Your task to perform on an android device: Add "usb-a to usb-b" to the cart on ebay.com, then select checkout. Image 0: 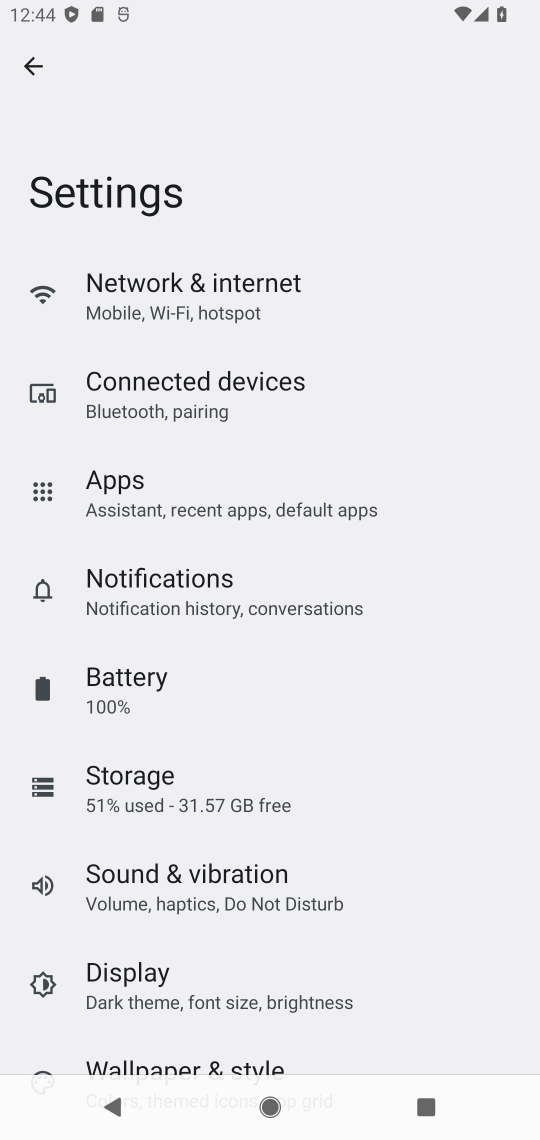
Step 0: press home button
Your task to perform on an android device: Add "usb-a to usb-b" to the cart on ebay.com, then select checkout. Image 1: 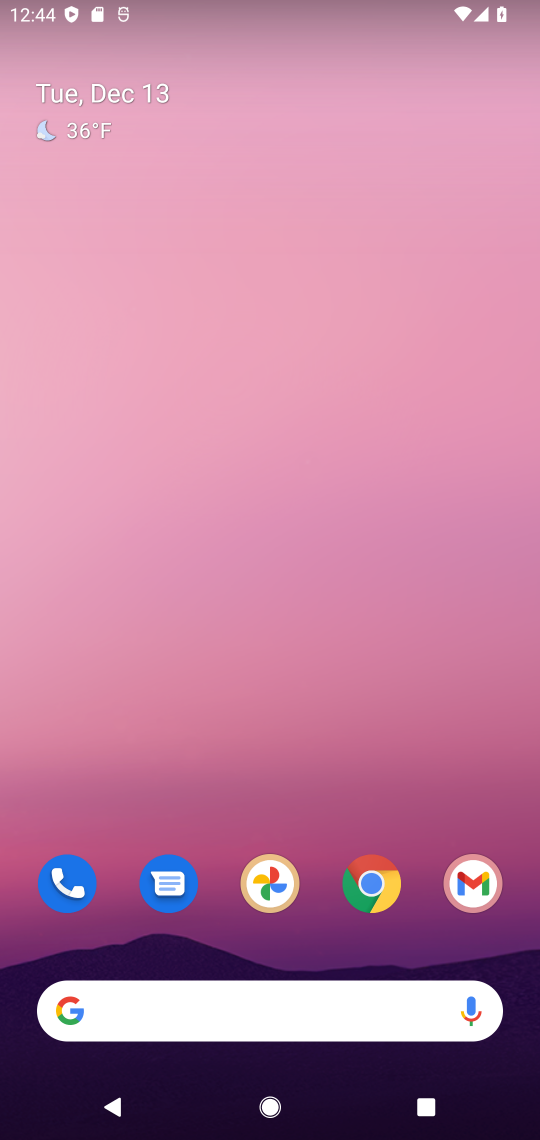
Step 1: drag from (265, 912) to (282, 328)
Your task to perform on an android device: Add "usb-a to usb-b" to the cart on ebay.com, then select checkout. Image 2: 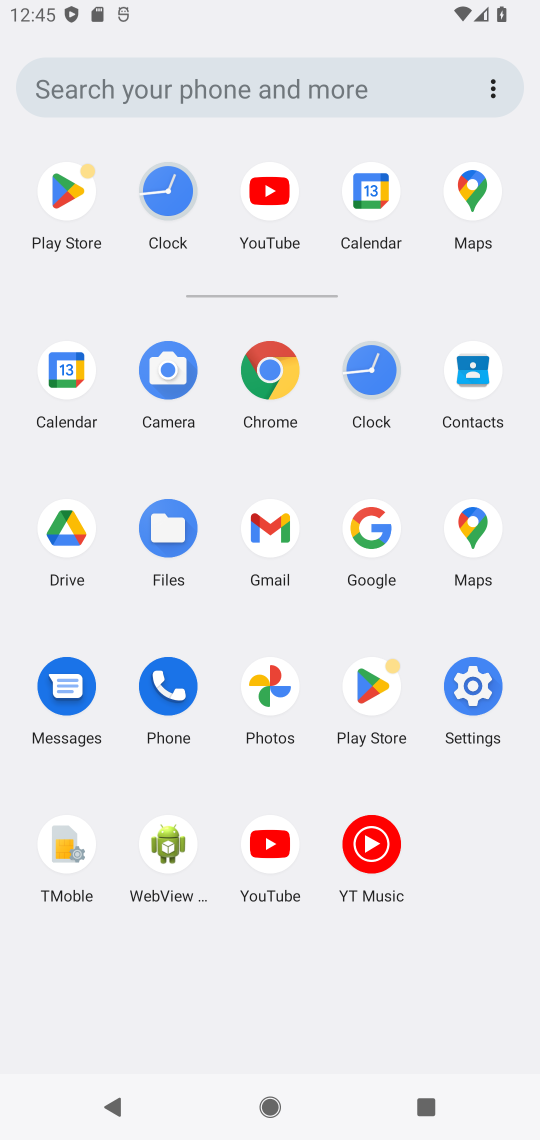
Step 2: click (270, 387)
Your task to perform on an android device: Add "usb-a to usb-b" to the cart on ebay.com, then select checkout. Image 3: 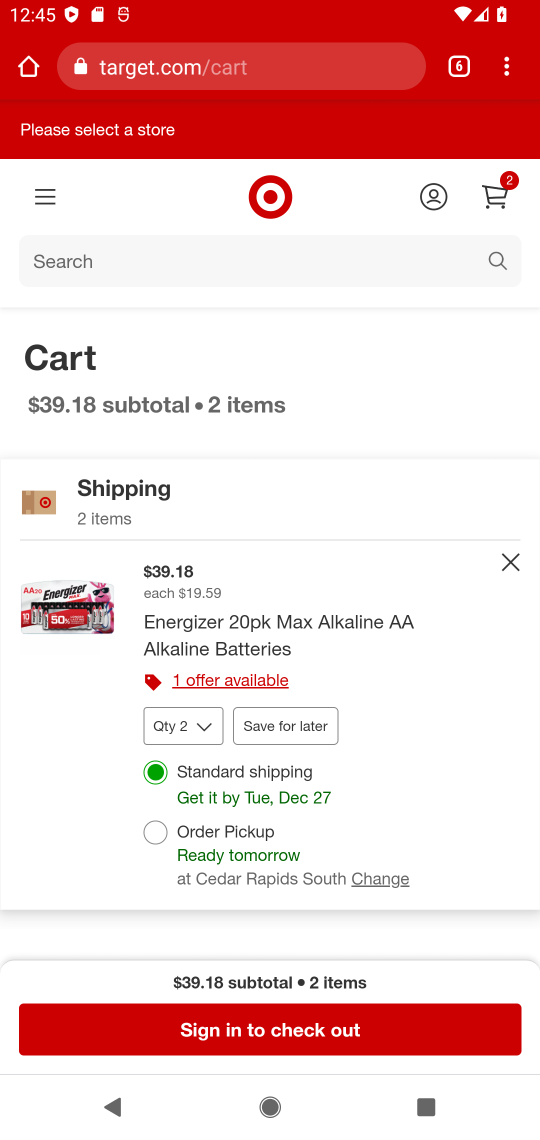
Step 3: click (152, 62)
Your task to perform on an android device: Add "usb-a to usb-b" to the cart on ebay.com, then select checkout. Image 4: 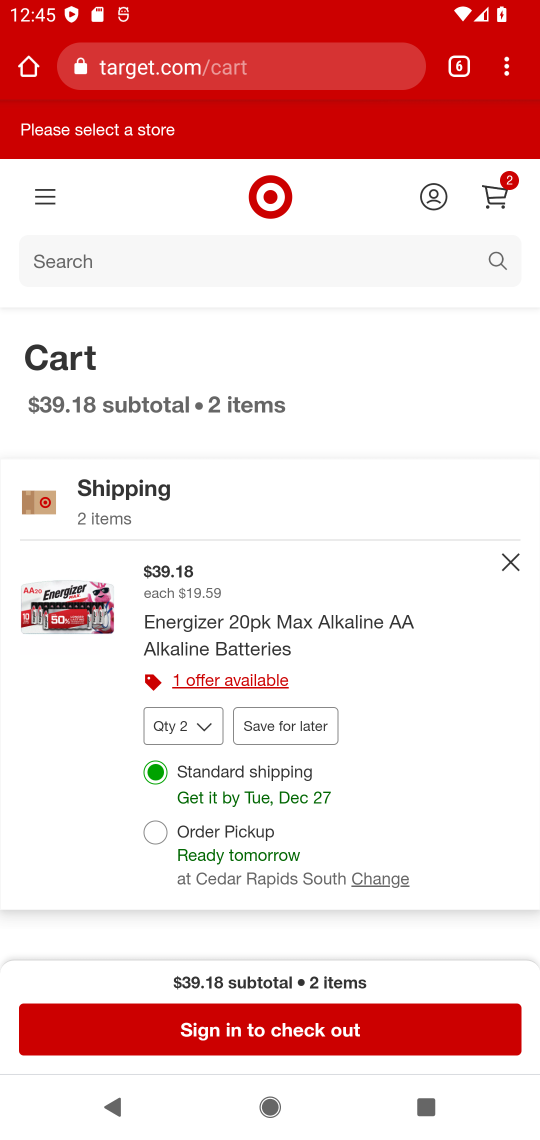
Step 4: click (152, 62)
Your task to perform on an android device: Add "usb-a to usb-b" to the cart on ebay.com, then select checkout. Image 5: 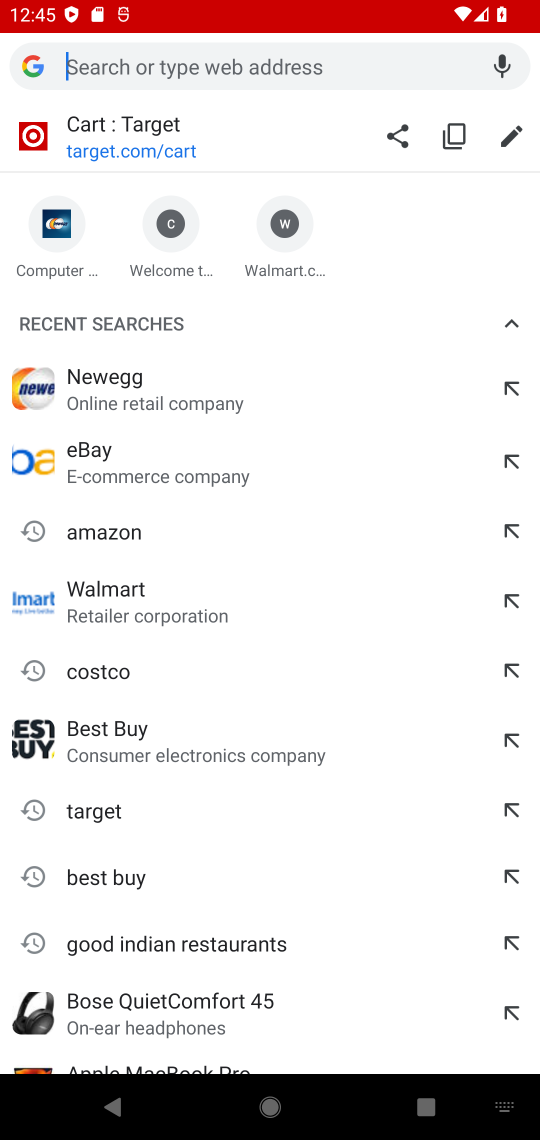
Step 5: type "ebay.com,"
Your task to perform on an android device: Add "usb-a to usb-b" to the cart on ebay.com, then select checkout. Image 6: 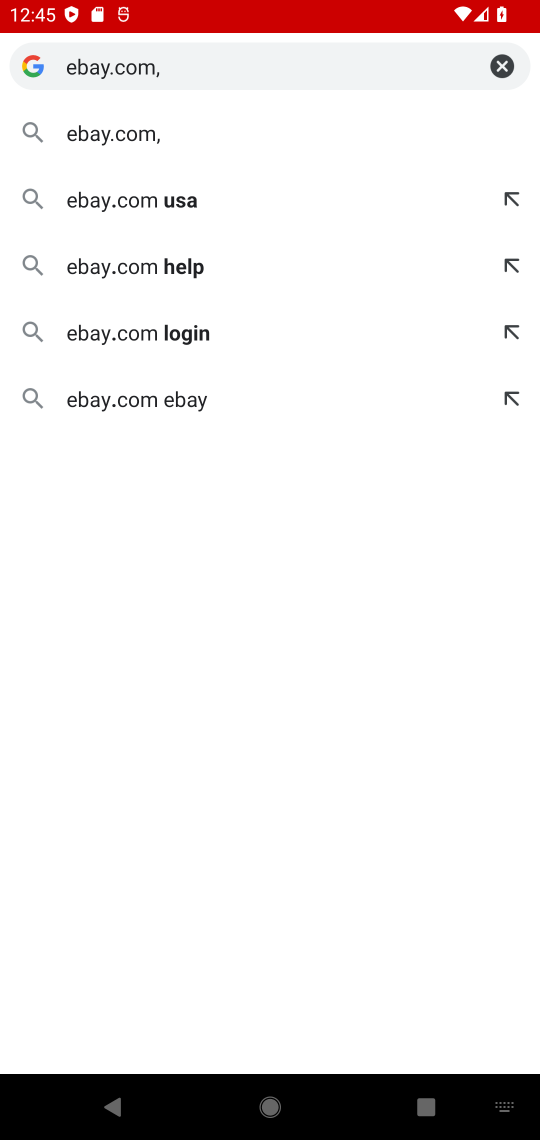
Step 6: click (135, 134)
Your task to perform on an android device: Add "usb-a to usb-b" to the cart on ebay.com, then select checkout. Image 7: 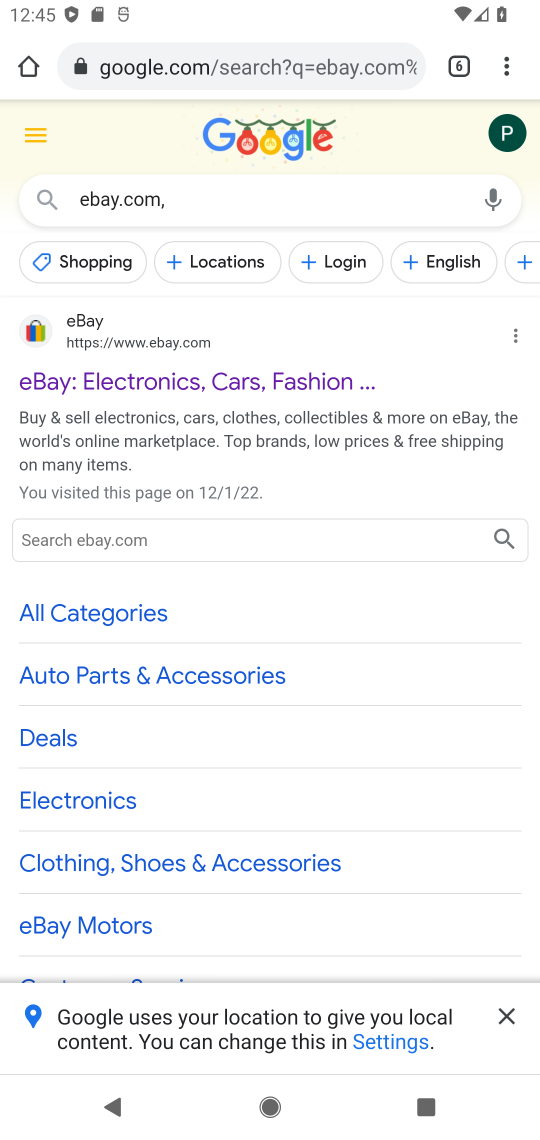
Step 7: click (86, 335)
Your task to perform on an android device: Add "usb-a to usb-b" to the cart on ebay.com, then select checkout. Image 8: 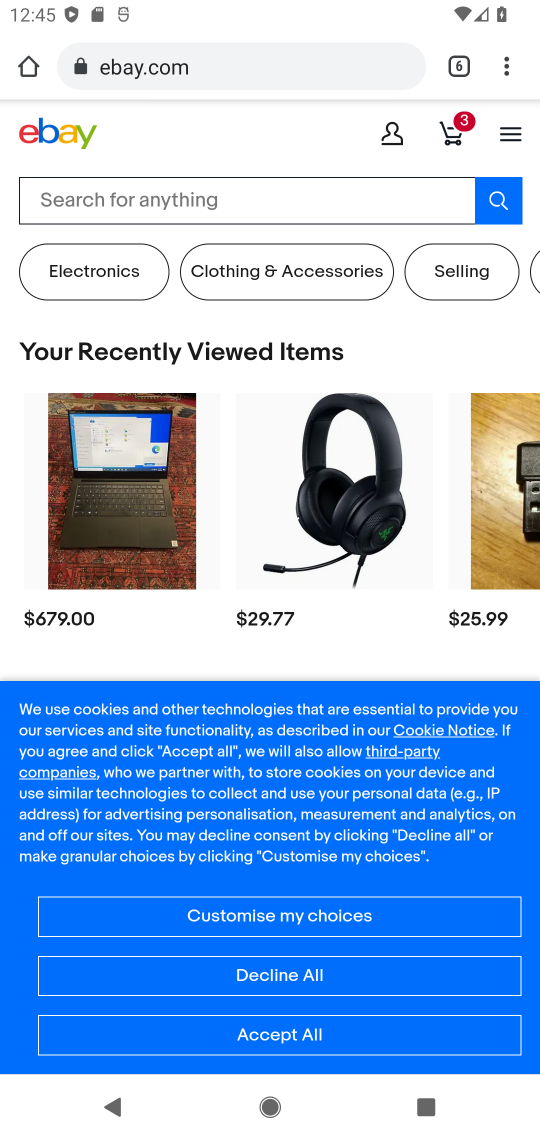
Step 8: click (294, 185)
Your task to perform on an android device: Add "usb-a to usb-b" to the cart on ebay.com, then select checkout. Image 9: 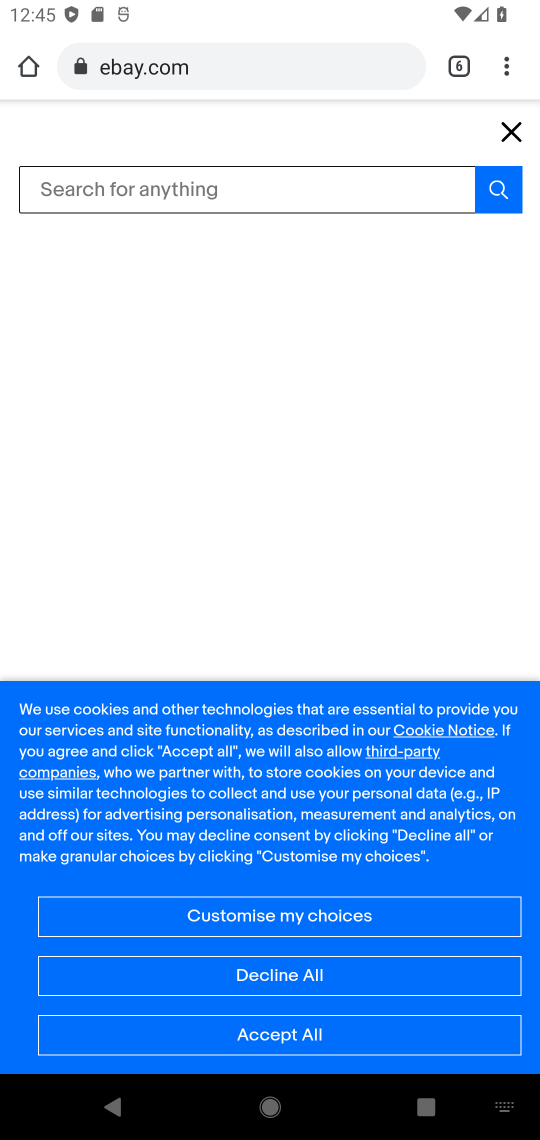
Step 9: click (263, 1027)
Your task to perform on an android device: Add "usb-a to usb-b" to the cart on ebay.com, then select checkout. Image 10: 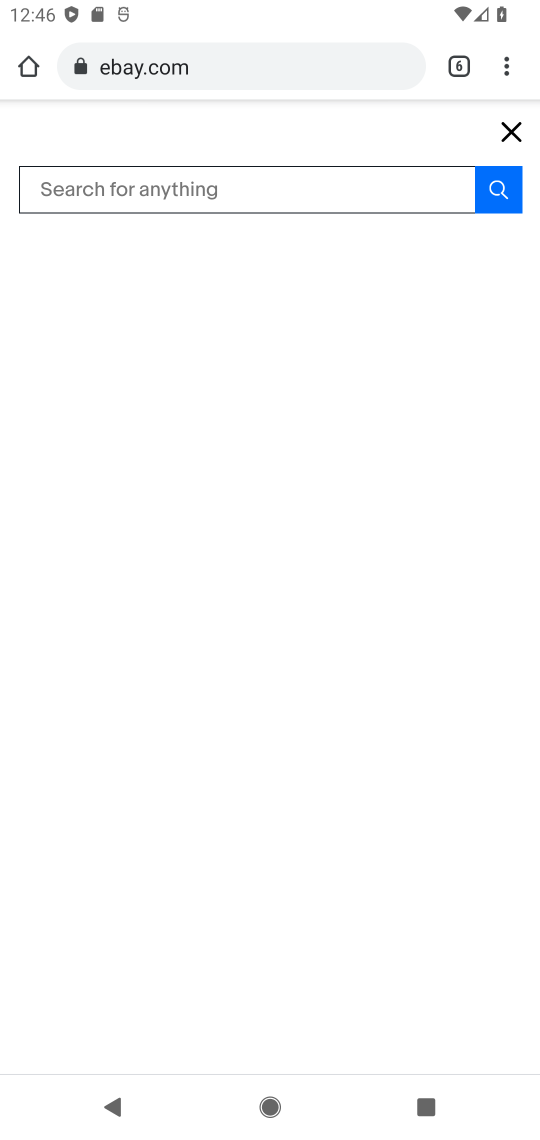
Step 10: click (193, 187)
Your task to perform on an android device: Add "usb-a to usb-b" to the cart on ebay.com, then select checkout. Image 11: 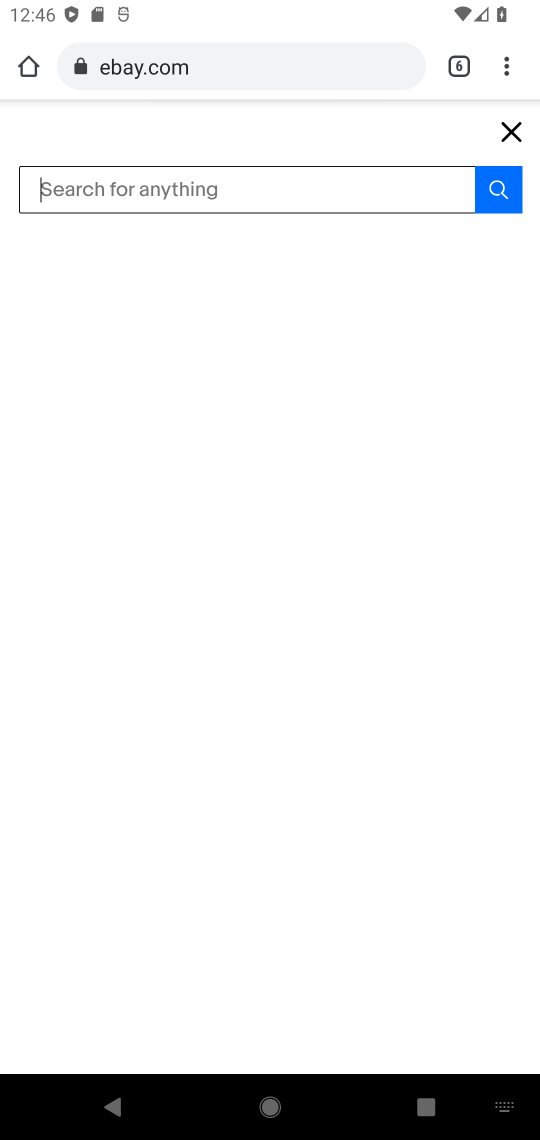
Step 11: type "usb-a to usb-b"
Your task to perform on an android device: Add "usb-a to usb-b" to the cart on ebay.com, then select checkout. Image 12: 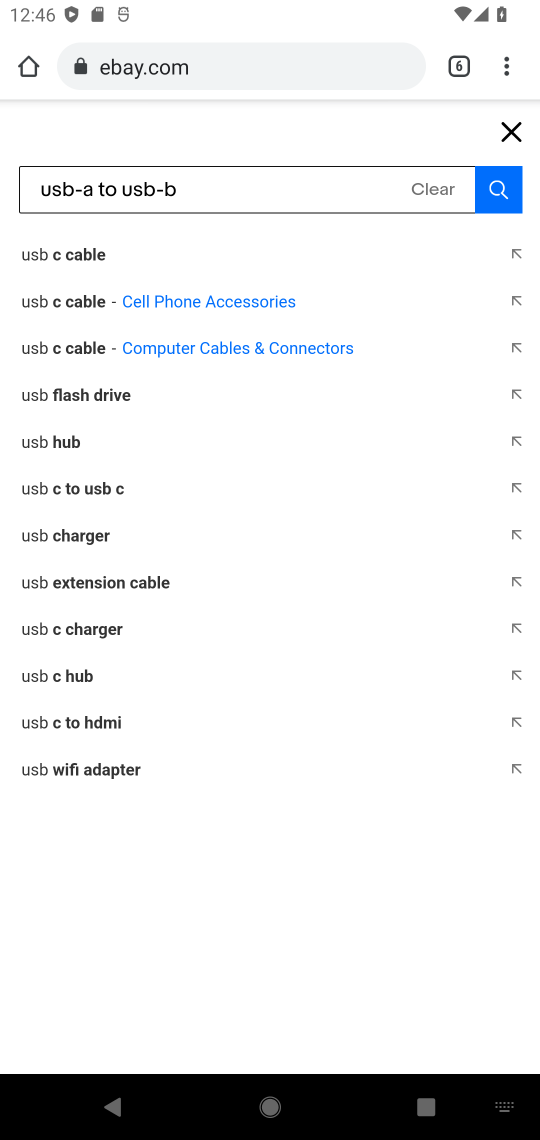
Step 12: click (504, 183)
Your task to perform on an android device: Add "usb-a to usb-b" to the cart on ebay.com, then select checkout. Image 13: 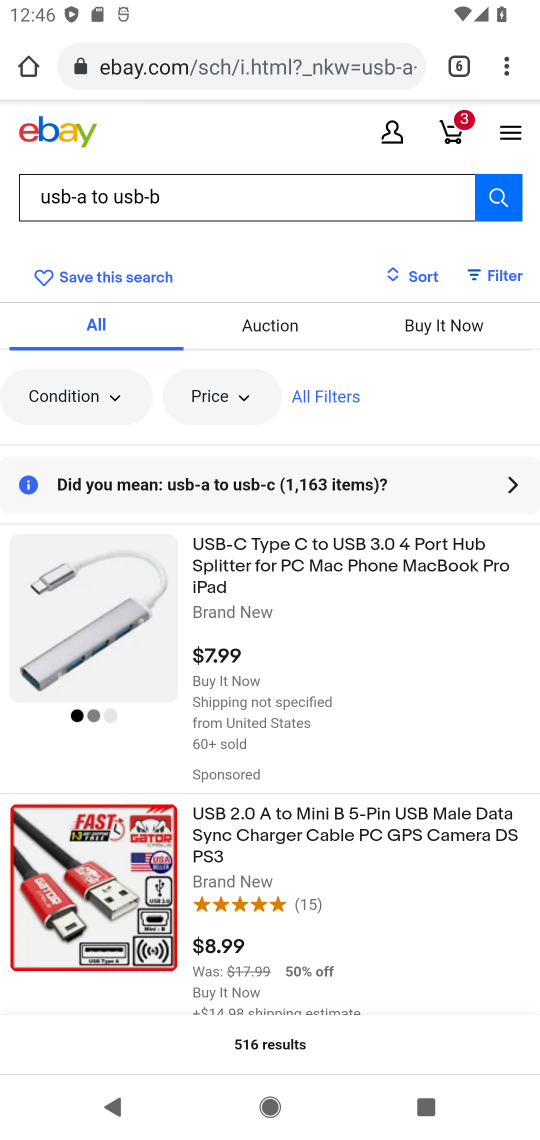
Step 13: drag from (361, 763) to (408, 563)
Your task to perform on an android device: Add "usb-a to usb-b" to the cart on ebay.com, then select checkout. Image 14: 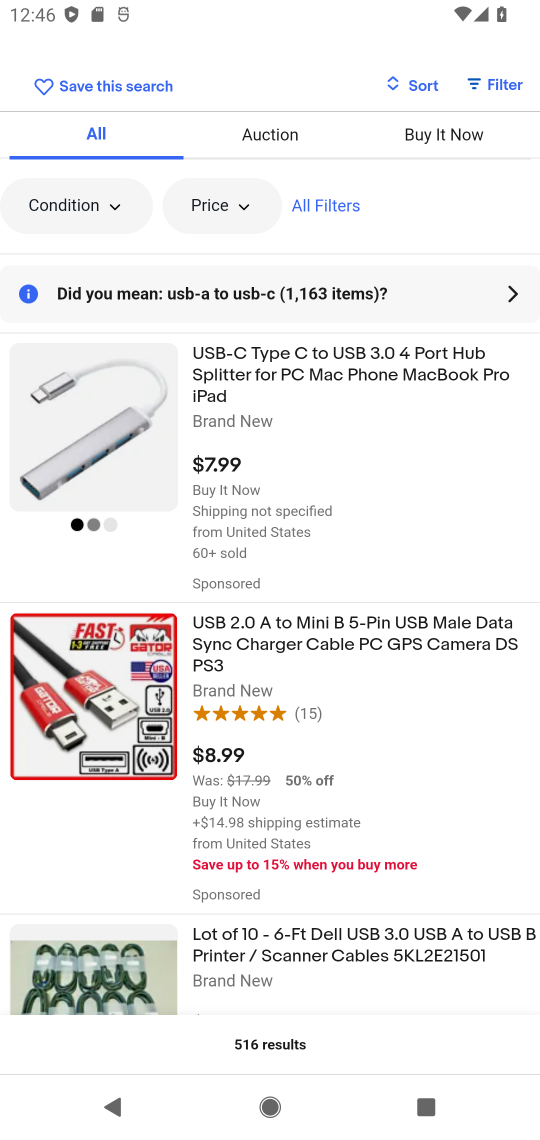
Step 14: click (398, 703)
Your task to perform on an android device: Add "usb-a to usb-b" to the cart on ebay.com, then select checkout. Image 15: 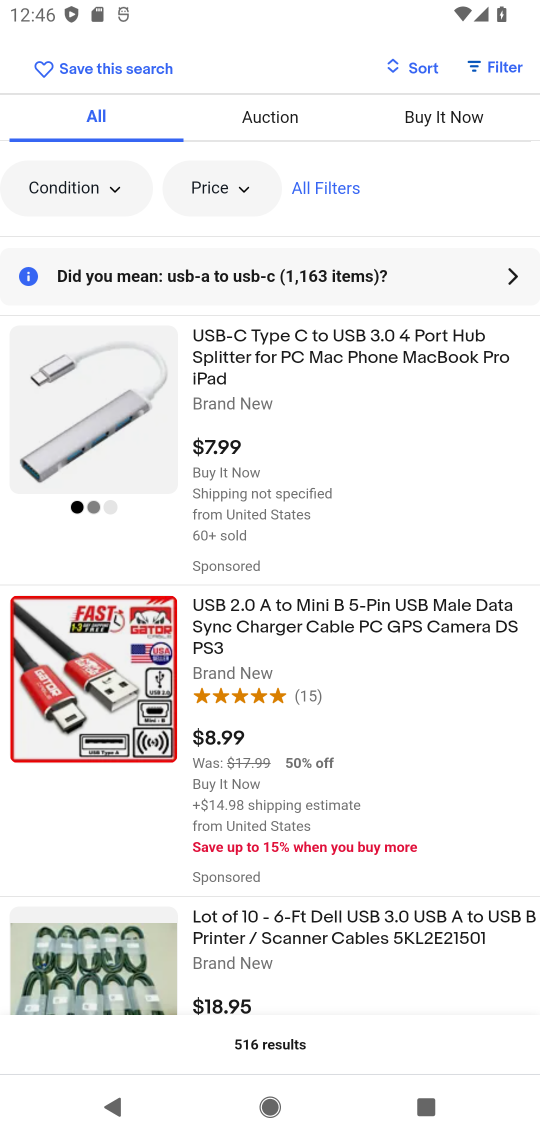
Step 15: drag from (327, 964) to (328, 887)
Your task to perform on an android device: Add "usb-a to usb-b" to the cart on ebay.com, then select checkout. Image 16: 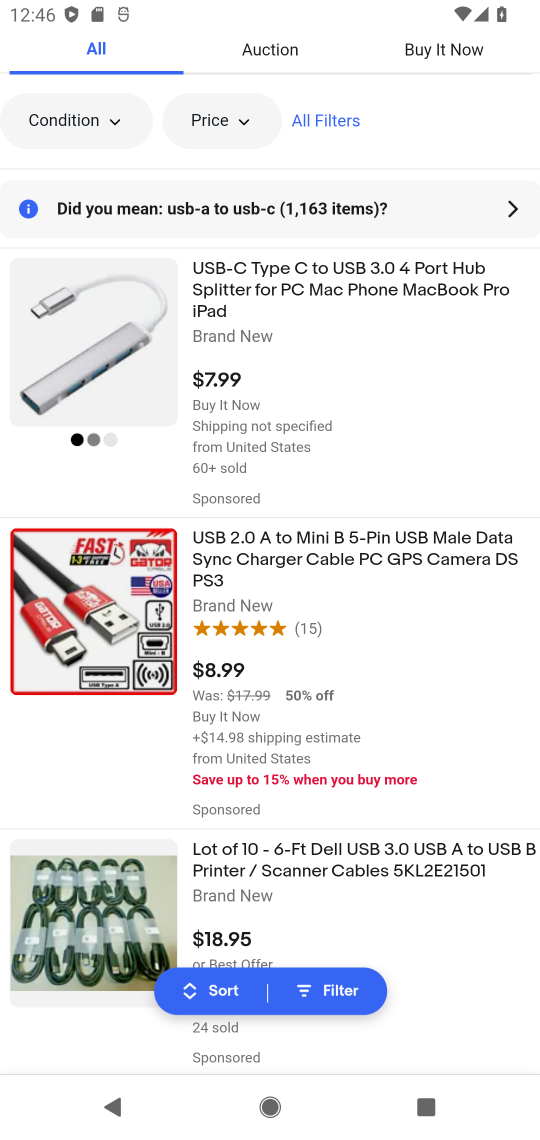
Step 16: drag from (440, 1022) to (350, 724)
Your task to perform on an android device: Add "usb-a to usb-b" to the cart on ebay.com, then select checkout. Image 17: 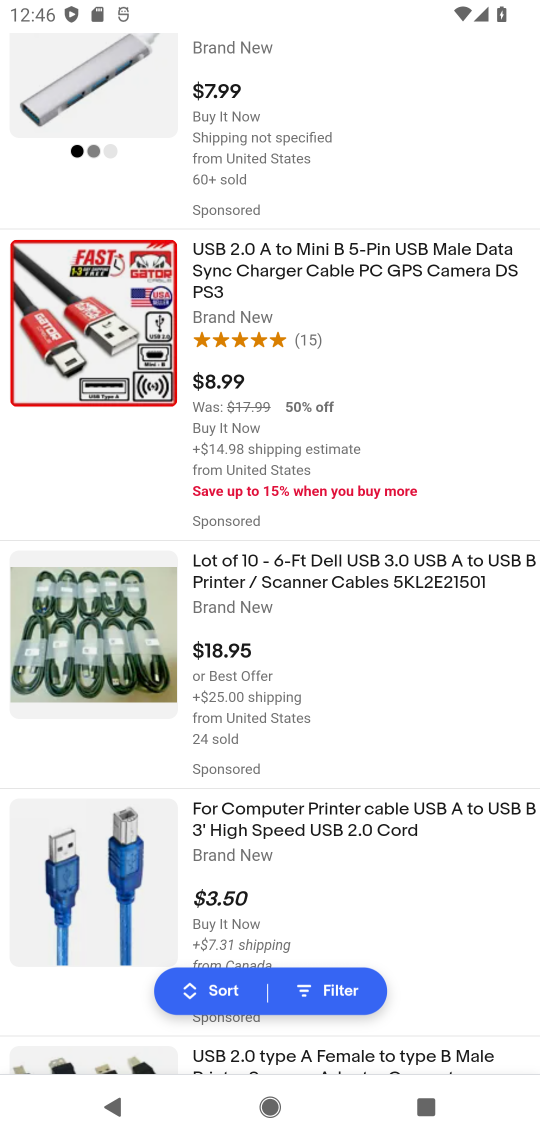
Step 17: drag from (360, 920) to (351, 641)
Your task to perform on an android device: Add "usb-a to usb-b" to the cart on ebay.com, then select checkout. Image 18: 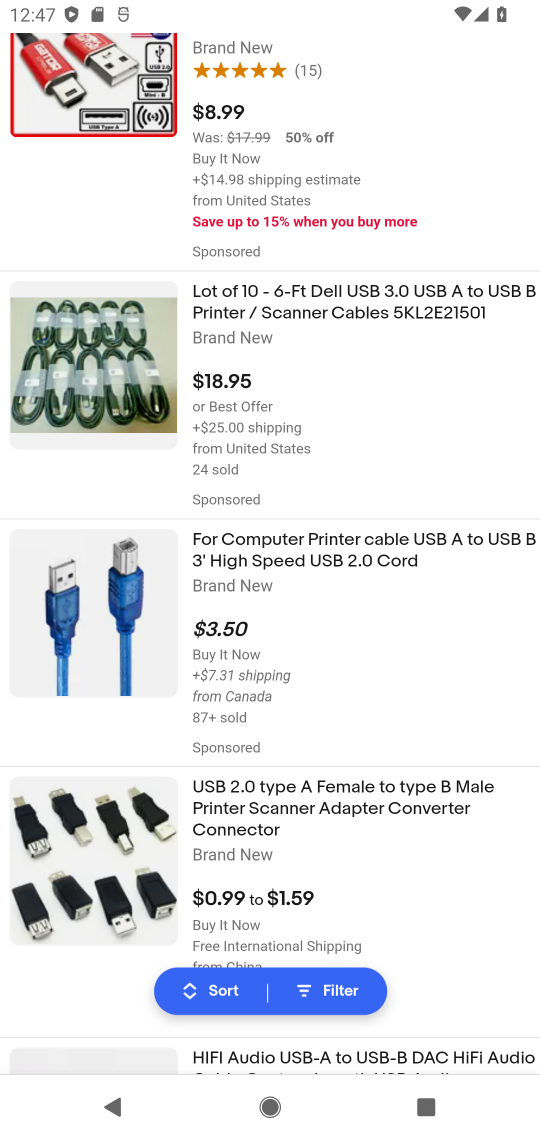
Step 18: click (340, 576)
Your task to perform on an android device: Add "usb-a to usb-b" to the cart on ebay.com, then select checkout. Image 19: 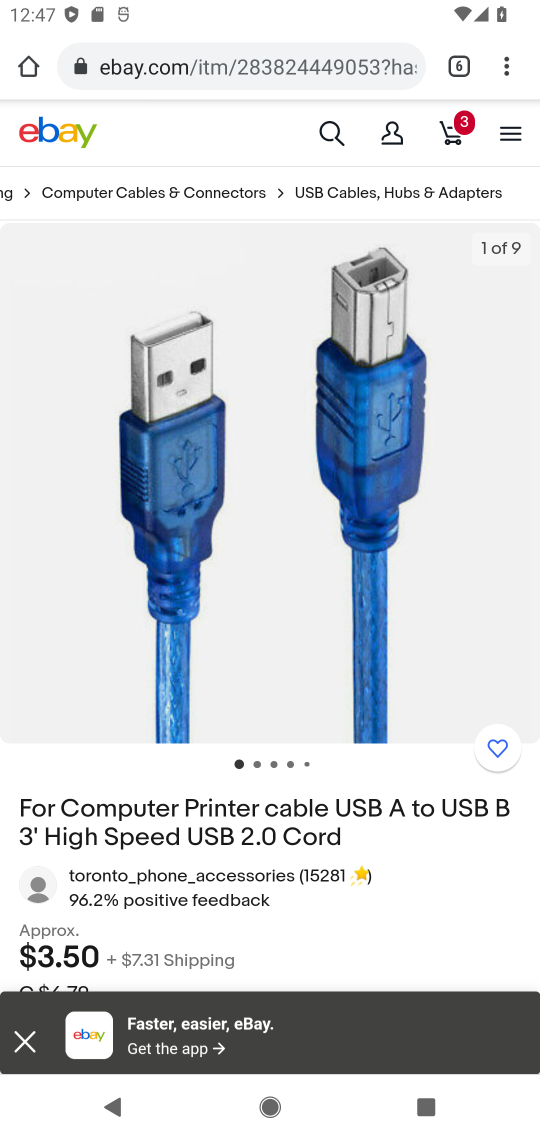
Step 19: drag from (318, 816) to (364, 725)
Your task to perform on an android device: Add "usb-a to usb-b" to the cart on ebay.com, then select checkout. Image 20: 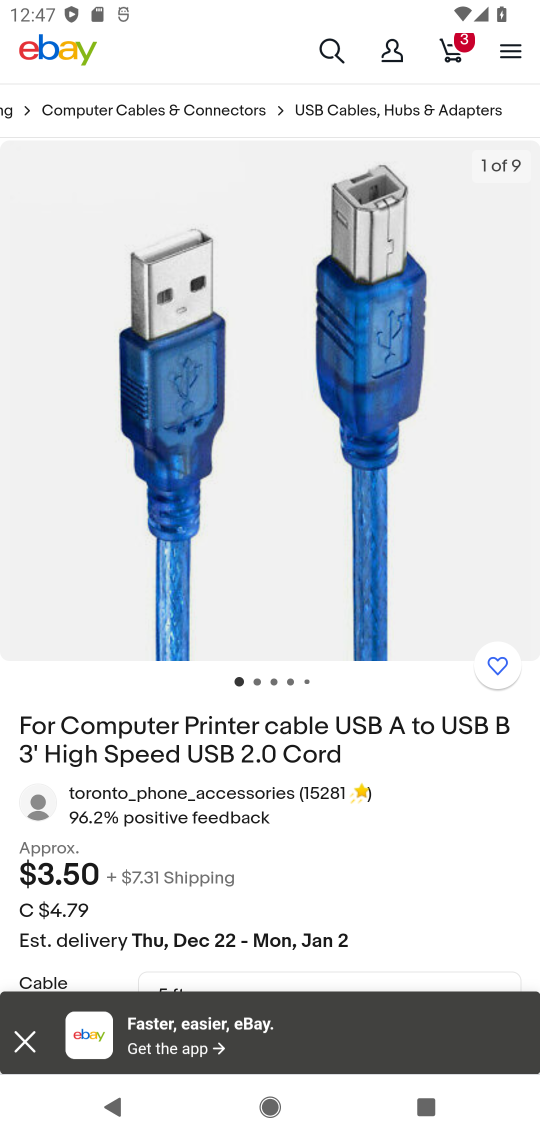
Step 20: drag from (347, 826) to (367, 743)
Your task to perform on an android device: Add "usb-a to usb-b" to the cart on ebay.com, then select checkout. Image 21: 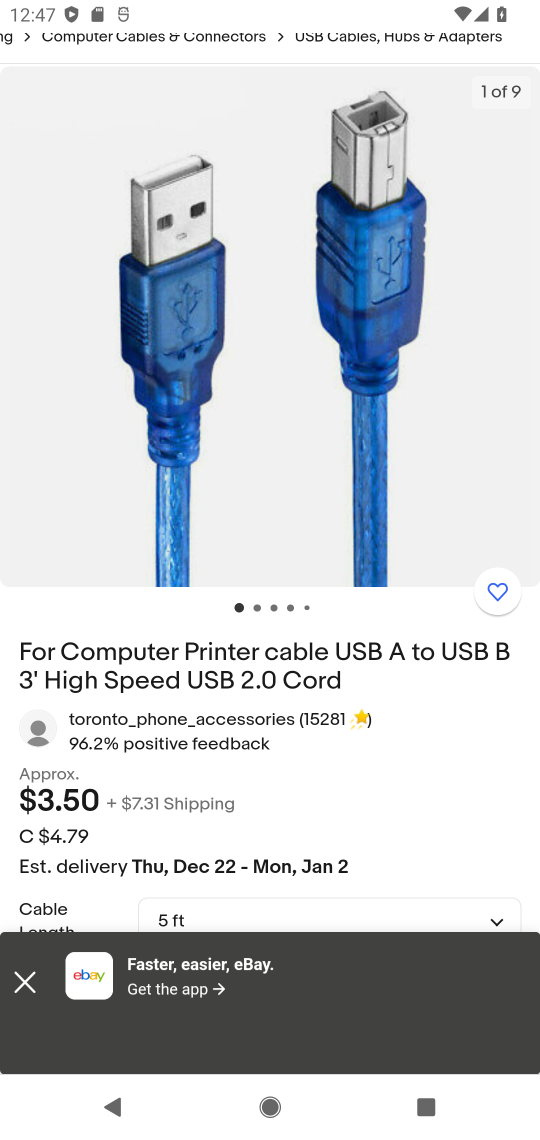
Step 21: click (372, 784)
Your task to perform on an android device: Add "usb-a to usb-b" to the cart on ebay.com, then select checkout. Image 22: 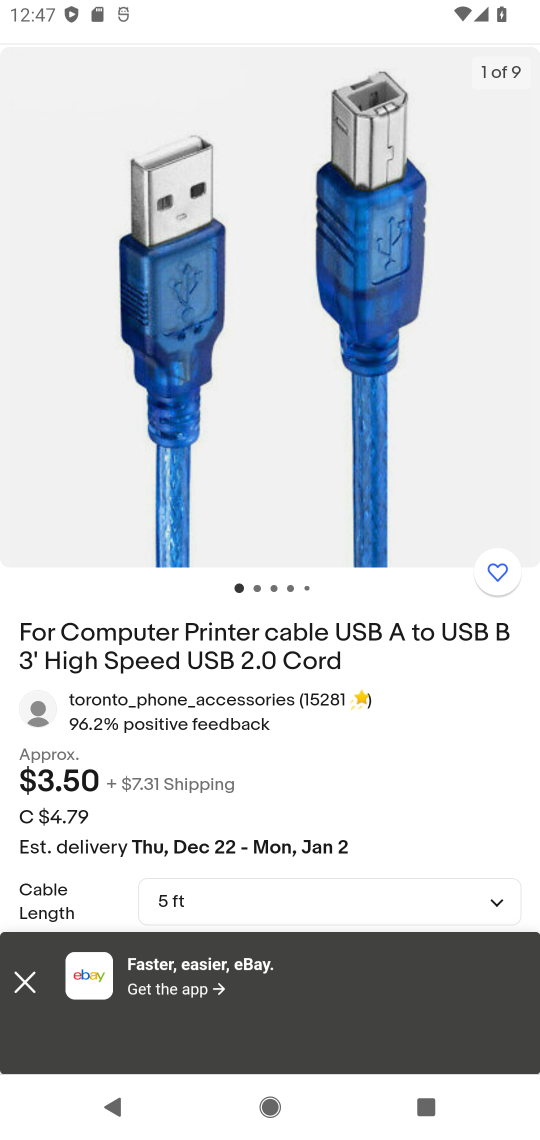
Step 22: click (339, 731)
Your task to perform on an android device: Add "usb-a to usb-b" to the cart on ebay.com, then select checkout. Image 23: 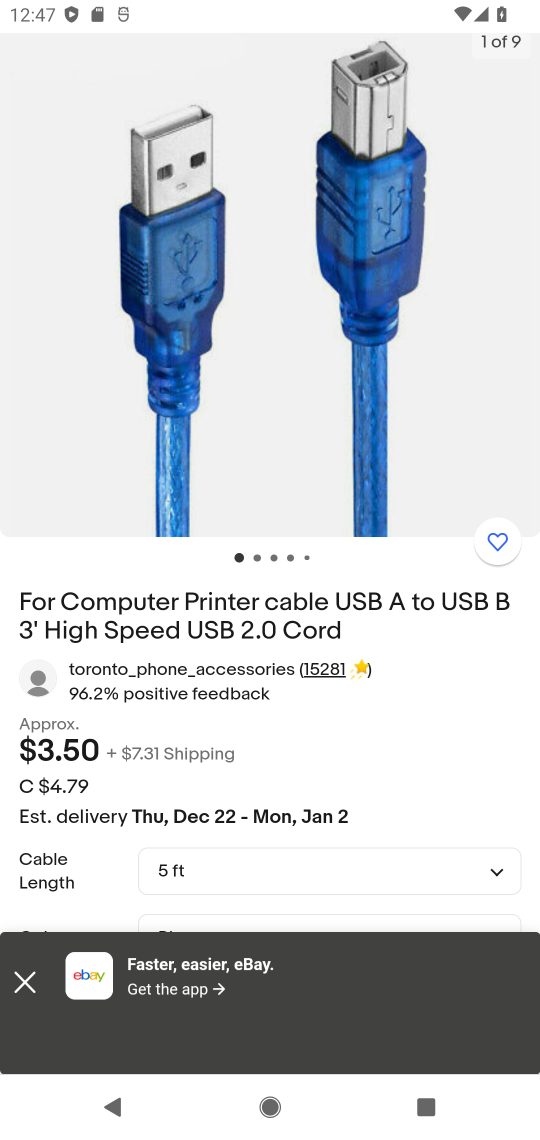
Step 23: drag from (390, 792) to (417, 547)
Your task to perform on an android device: Add "usb-a to usb-b" to the cart on ebay.com, then select checkout. Image 24: 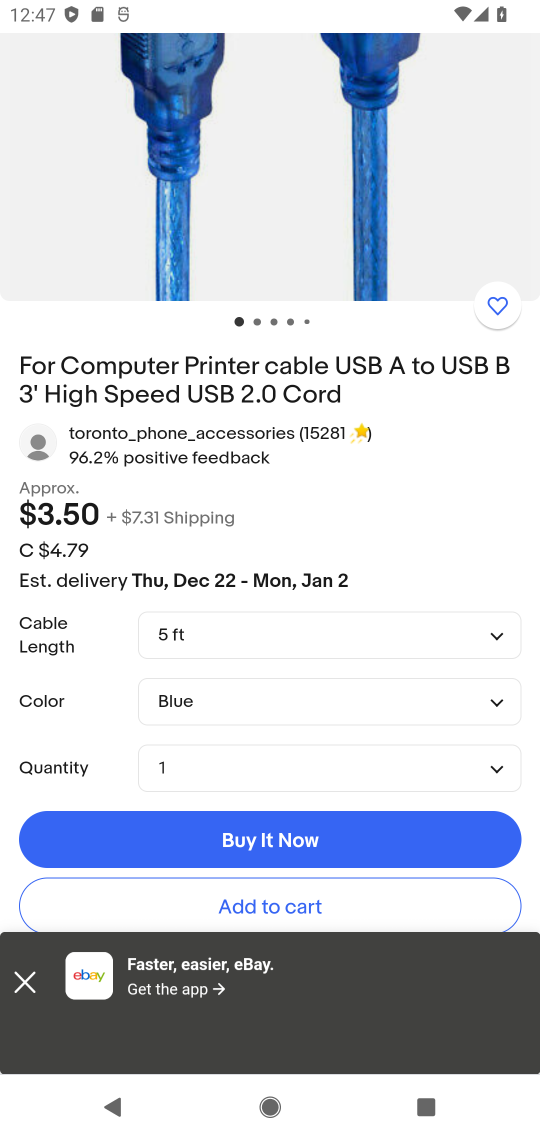
Step 24: click (237, 901)
Your task to perform on an android device: Add "usb-a to usb-b" to the cart on ebay.com, then select checkout. Image 25: 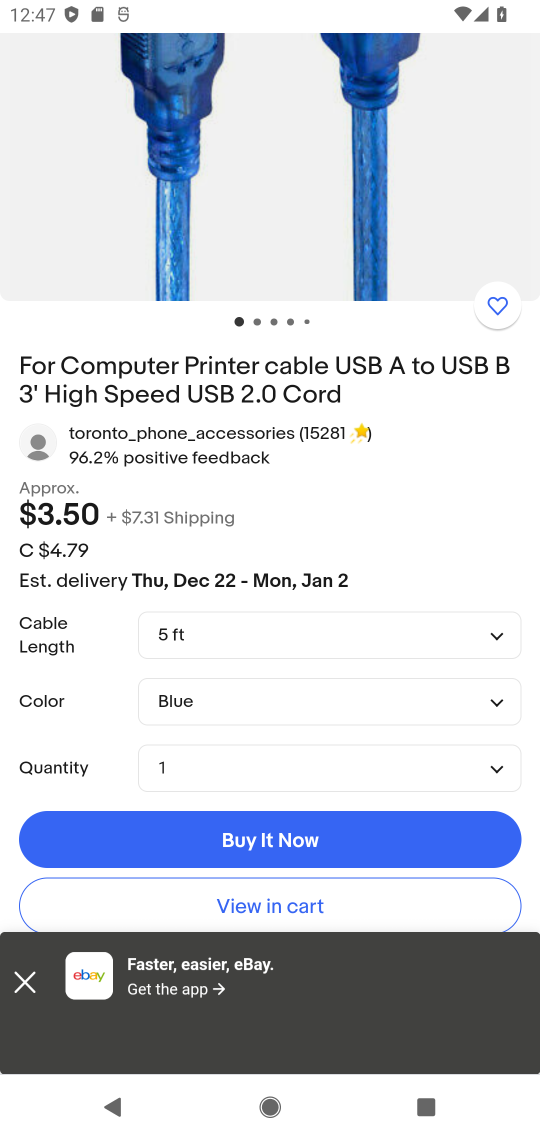
Step 25: task complete